Your task to perform on an android device: add a contact in the contacts app Image 0: 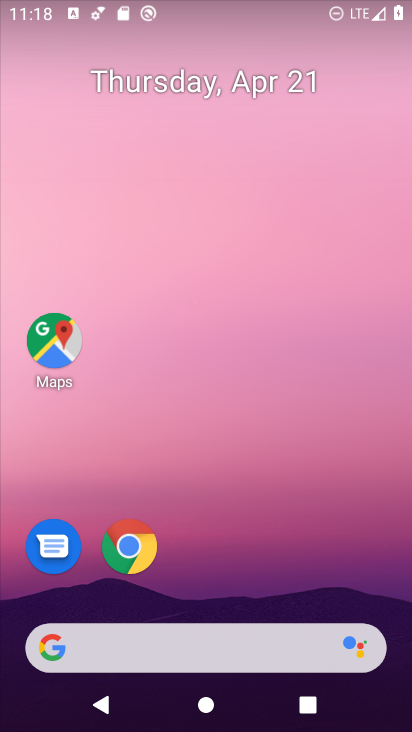
Step 0: drag from (306, 590) to (254, 250)
Your task to perform on an android device: add a contact in the contacts app Image 1: 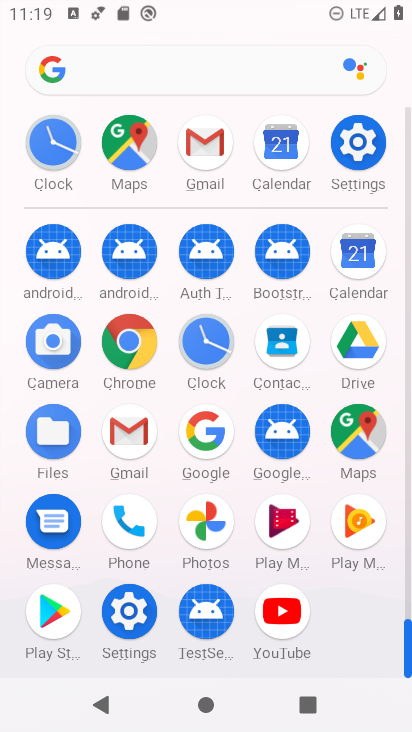
Step 1: click (286, 354)
Your task to perform on an android device: add a contact in the contacts app Image 2: 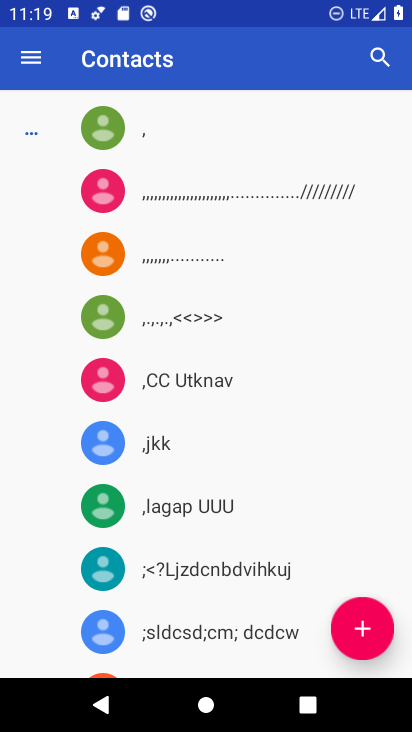
Step 2: click (370, 626)
Your task to perform on an android device: add a contact in the contacts app Image 3: 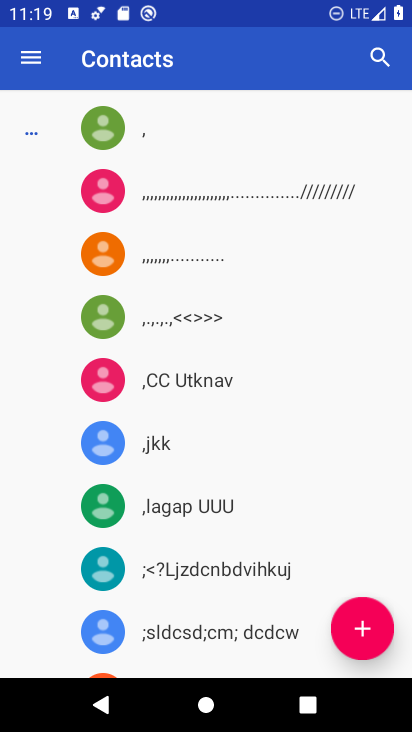
Step 3: click (370, 626)
Your task to perform on an android device: add a contact in the contacts app Image 4: 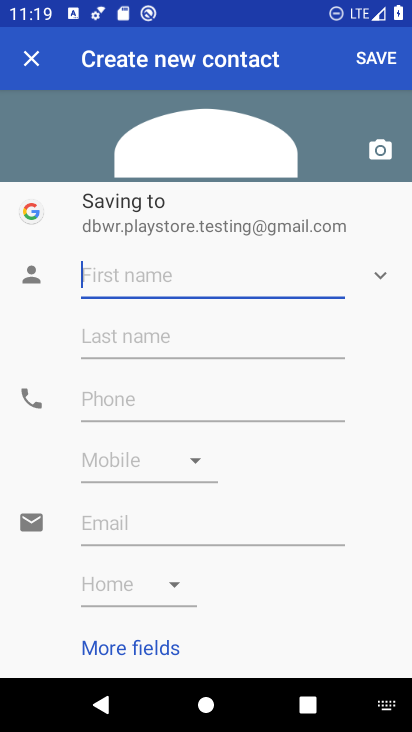
Step 4: type "hhgjjk"
Your task to perform on an android device: add a contact in the contacts app Image 5: 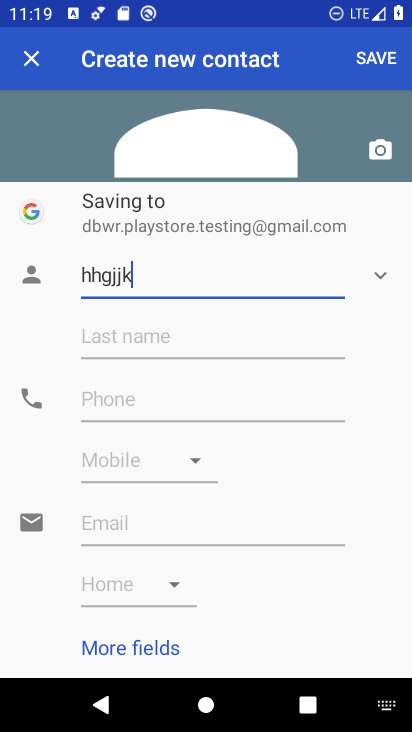
Step 5: click (176, 412)
Your task to perform on an android device: add a contact in the contacts app Image 6: 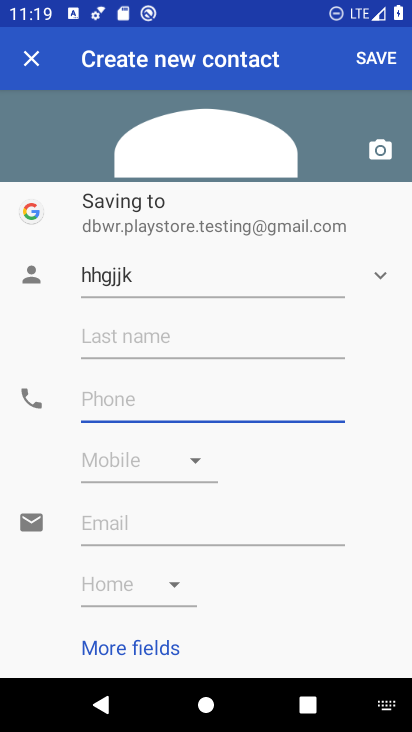
Step 6: type "4577"
Your task to perform on an android device: add a contact in the contacts app Image 7: 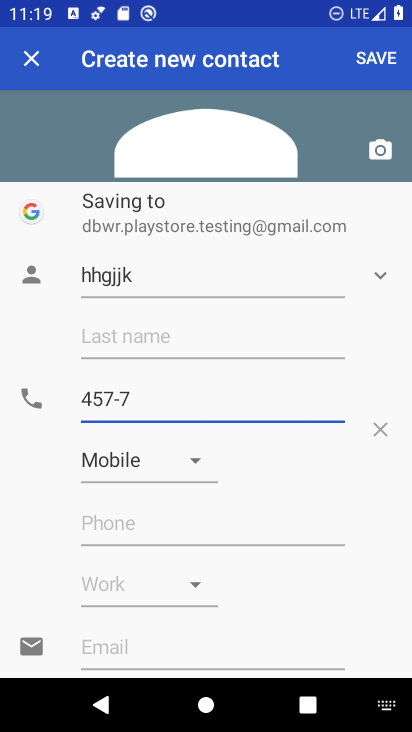
Step 7: click (386, 45)
Your task to perform on an android device: add a contact in the contacts app Image 8: 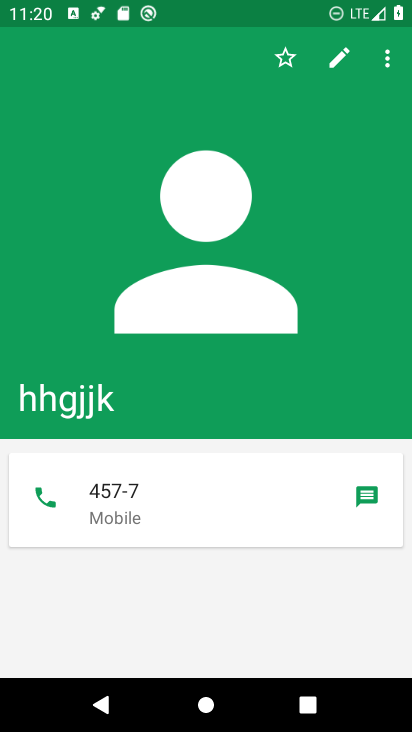
Step 8: task complete